Your task to perform on an android device: Search for seafood restaurants on Google Maps Image 0: 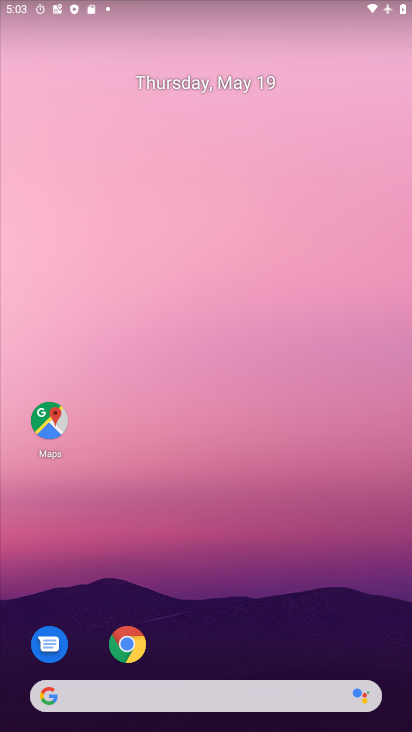
Step 0: click (53, 417)
Your task to perform on an android device: Search for seafood restaurants on Google Maps Image 1: 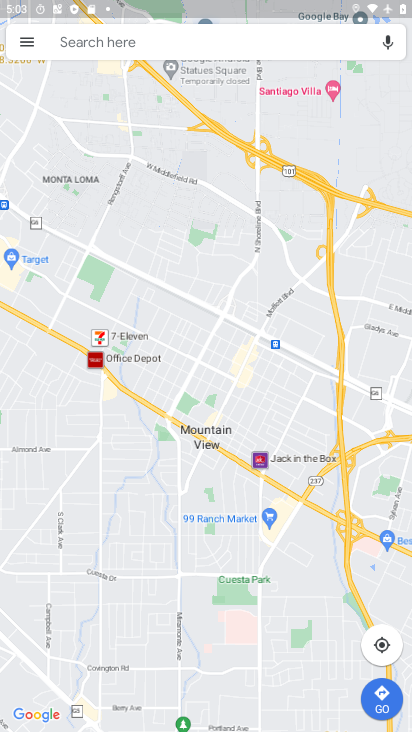
Step 1: click (89, 36)
Your task to perform on an android device: Search for seafood restaurants on Google Maps Image 2: 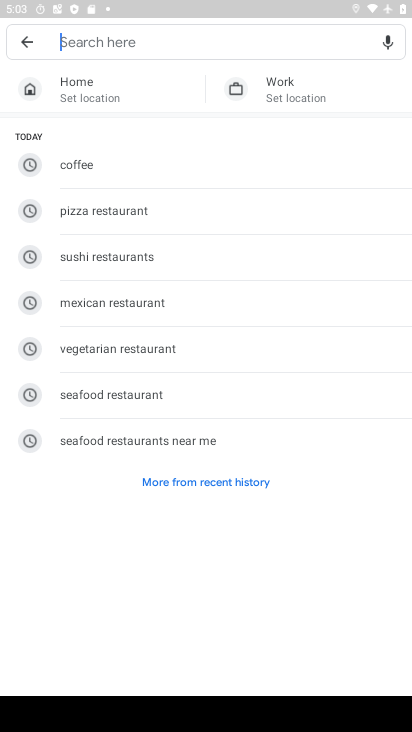
Step 2: click (130, 394)
Your task to perform on an android device: Search for seafood restaurants on Google Maps Image 3: 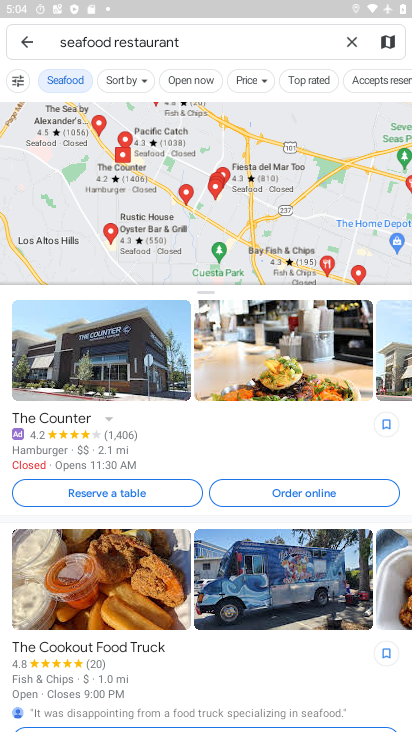
Step 3: task complete